Your task to perform on an android device: Show me productivity apps on the Play Store Image 0: 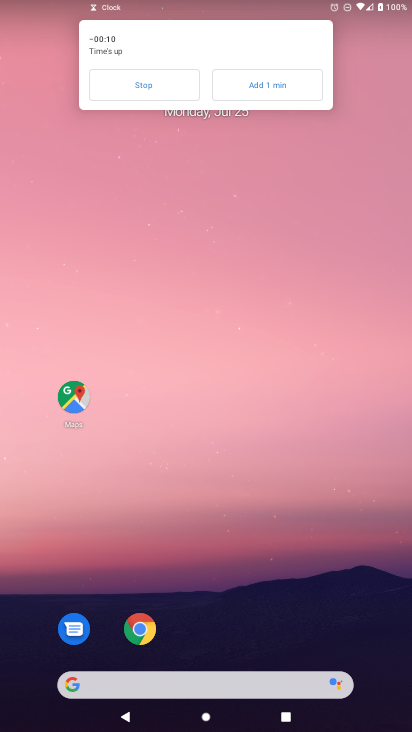
Step 0: drag from (197, 547) to (234, 281)
Your task to perform on an android device: Show me productivity apps on the Play Store Image 1: 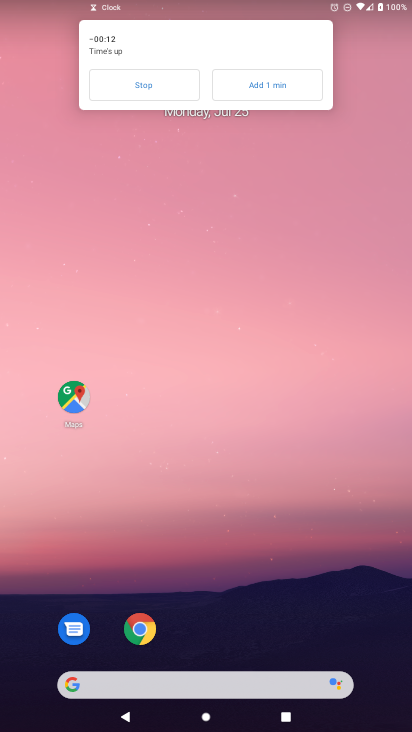
Step 1: click (143, 85)
Your task to perform on an android device: Show me productivity apps on the Play Store Image 2: 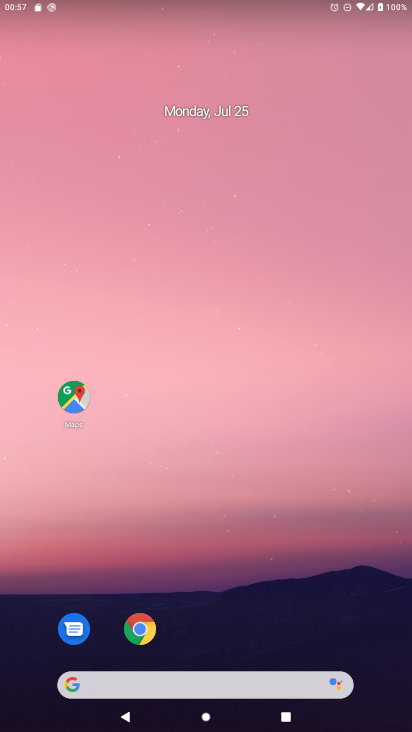
Step 2: click (276, 55)
Your task to perform on an android device: Show me productivity apps on the Play Store Image 3: 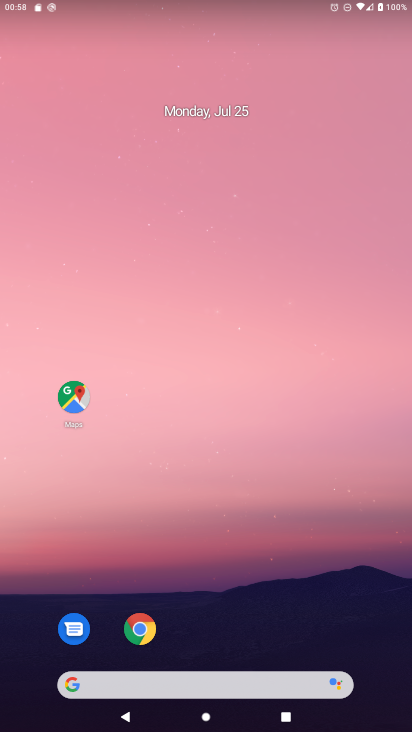
Step 3: click (146, 86)
Your task to perform on an android device: Show me productivity apps on the Play Store Image 4: 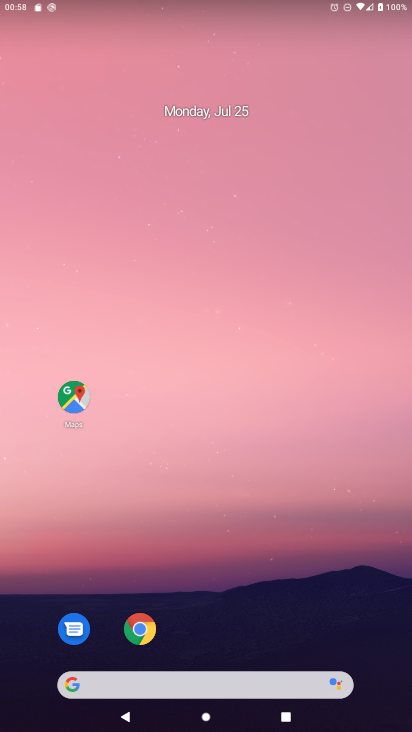
Step 4: drag from (230, 241) to (223, 152)
Your task to perform on an android device: Show me productivity apps on the Play Store Image 5: 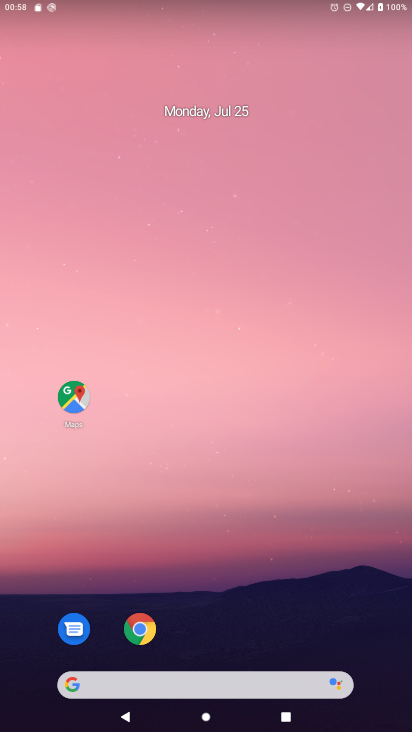
Step 5: click (247, 94)
Your task to perform on an android device: Show me productivity apps on the Play Store Image 6: 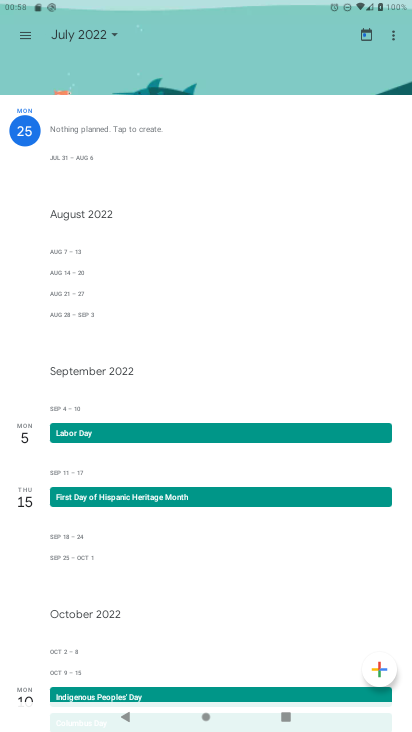
Step 6: press home button
Your task to perform on an android device: Show me productivity apps on the Play Store Image 7: 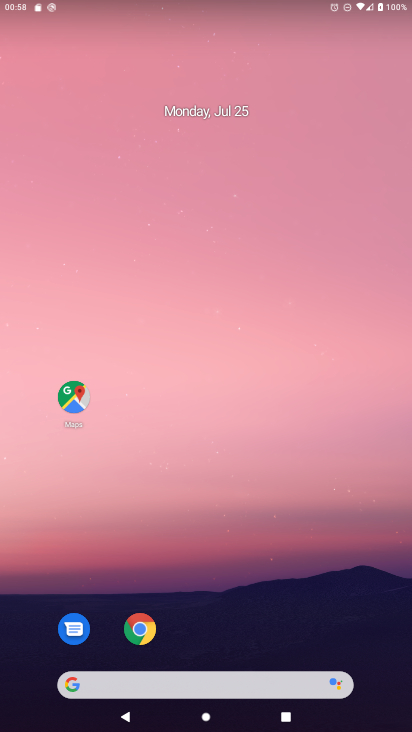
Step 7: drag from (182, 641) to (272, 89)
Your task to perform on an android device: Show me productivity apps on the Play Store Image 8: 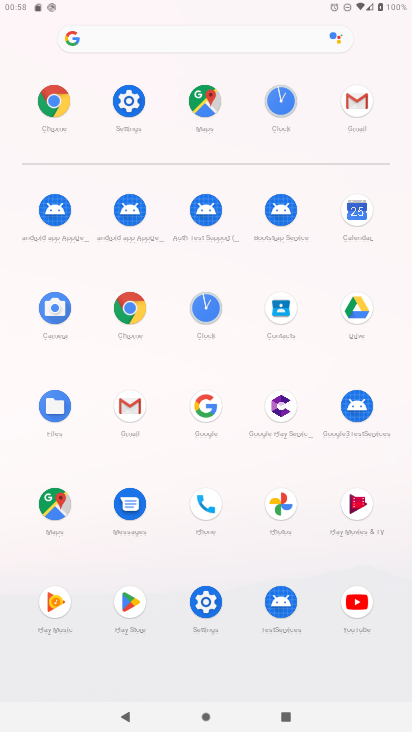
Step 8: click (124, 597)
Your task to perform on an android device: Show me productivity apps on the Play Store Image 9: 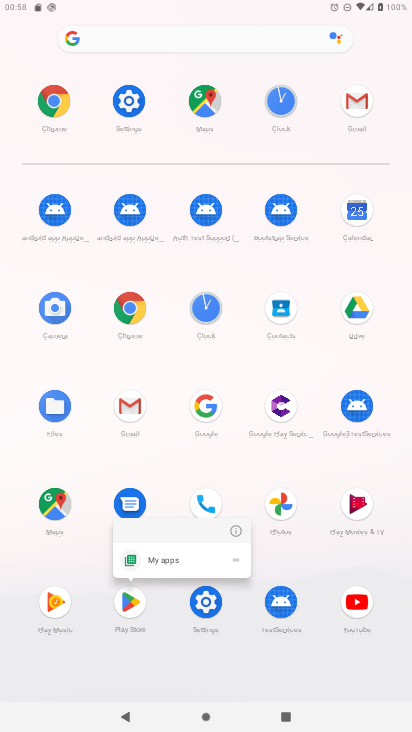
Step 9: click (231, 534)
Your task to perform on an android device: Show me productivity apps on the Play Store Image 10: 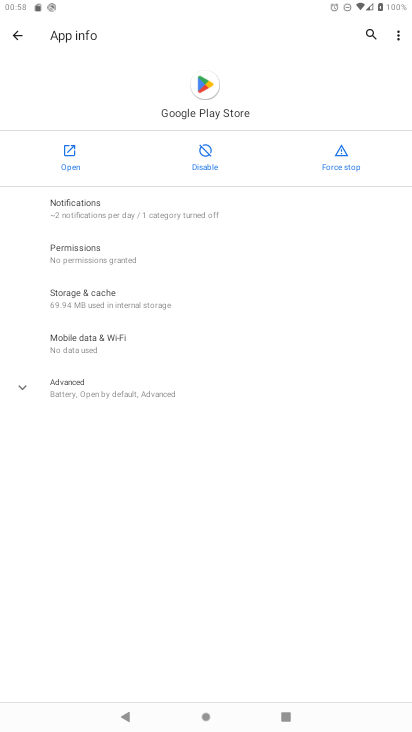
Step 10: click (68, 152)
Your task to perform on an android device: Show me productivity apps on the Play Store Image 11: 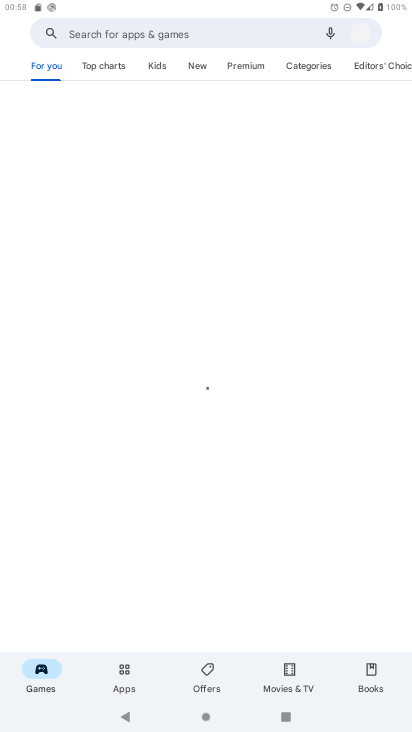
Step 11: drag from (196, 559) to (264, 289)
Your task to perform on an android device: Show me productivity apps on the Play Store Image 12: 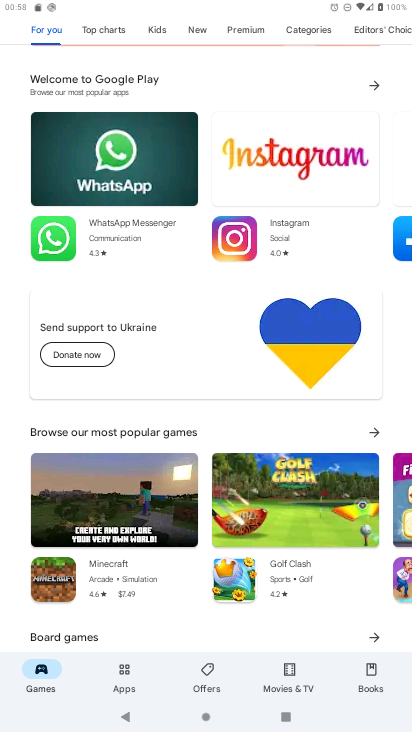
Step 12: drag from (181, 185) to (271, 727)
Your task to perform on an android device: Show me productivity apps on the Play Store Image 13: 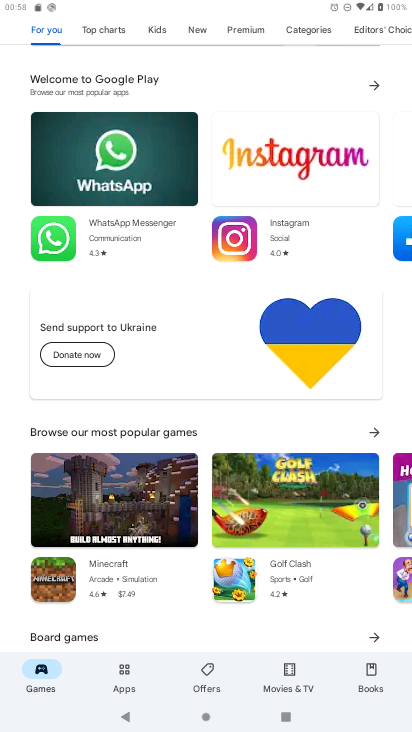
Step 13: drag from (171, 94) to (174, 693)
Your task to perform on an android device: Show me productivity apps on the Play Store Image 14: 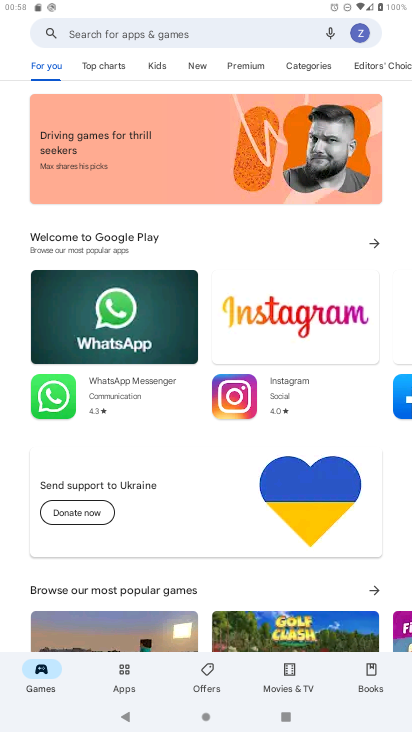
Step 14: drag from (357, 35) to (310, 354)
Your task to perform on an android device: Show me productivity apps on the Play Store Image 15: 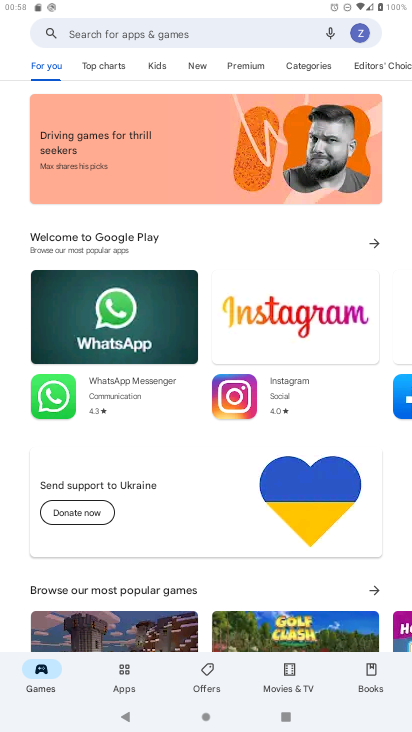
Step 15: click (354, 38)
Your task to perform on an android device: Show me productivity apps on the Play Store Image 16: 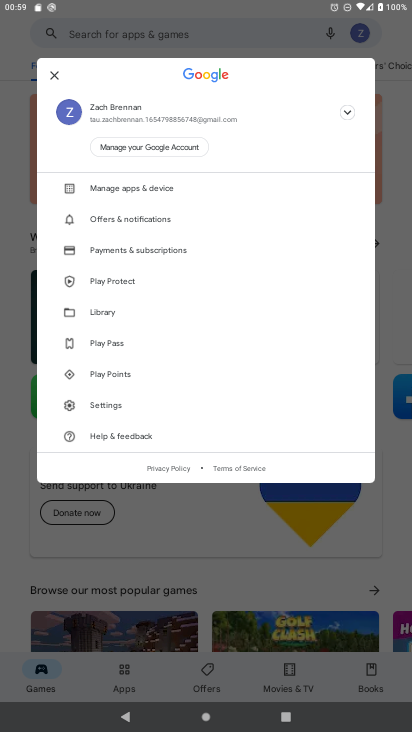
Step 16: drag from (195, 585) to (225, 524)
Your task to perform on an android device: Show me productivity apps on the Play Store Image 17: 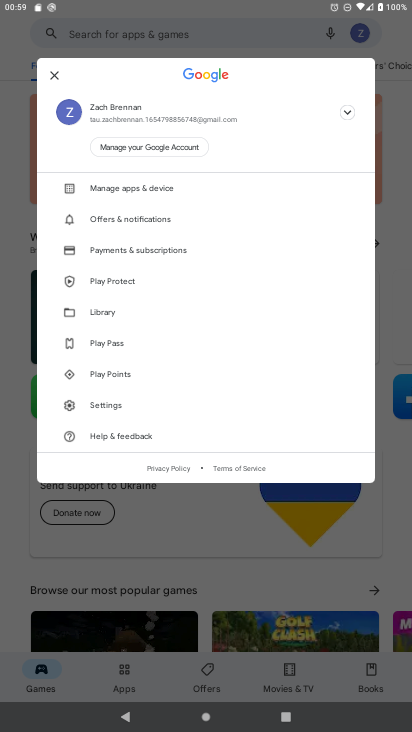
Step 17: drag from (187, 592) to (168, 414)
Your task to perform on an android device: Show me productivity apps on the Play Store Image 18: 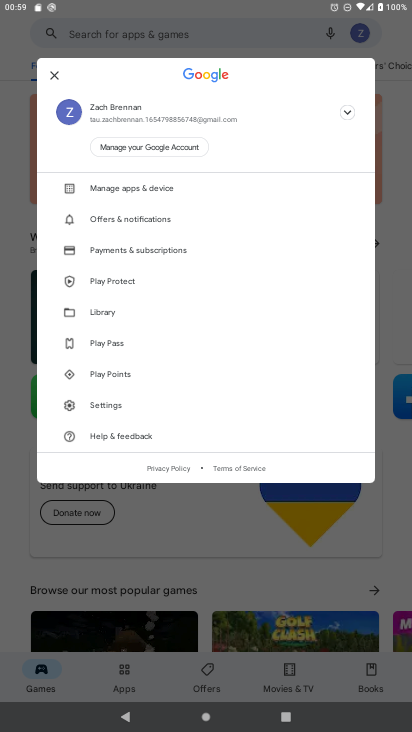
Step 18: click (53, 77)
Your task to perform on an android device: Show me productivity apps on the Play Store Image 19: 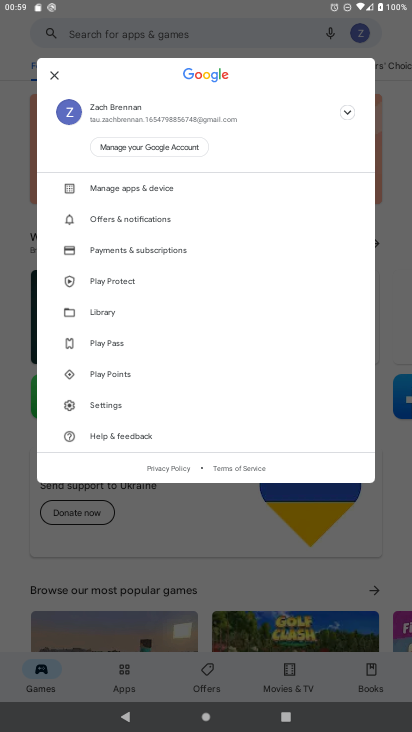
Step 19: task complete